Your task to perform on an android device: Add "dell xps" to the cart on walmart.com, then select checkout. Image 0: 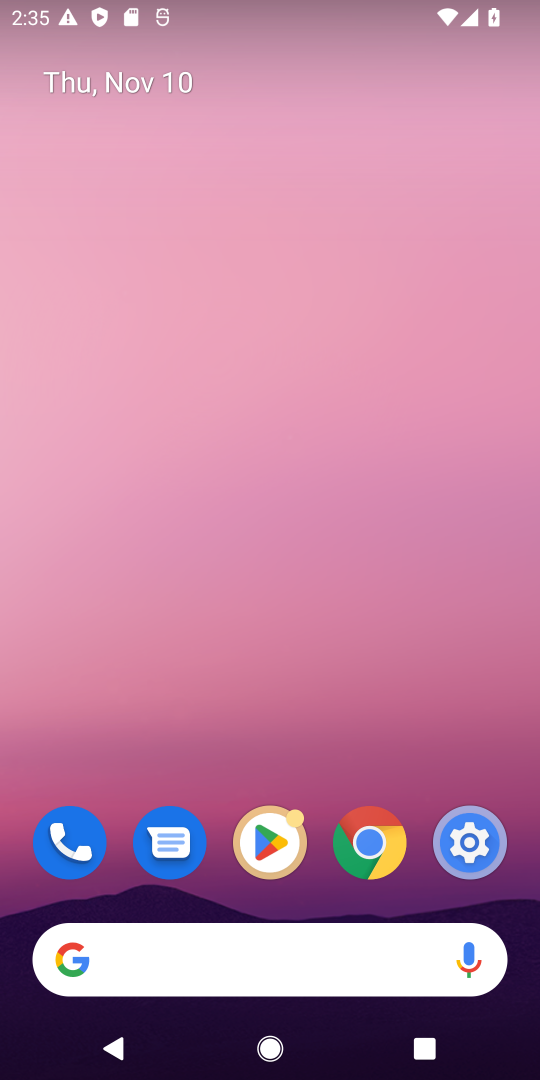
Step 0: click (299, 965)
Your task to perform on an android device: Add "dell xps" to the cart on walmart.com, then select checkout. Image 1: 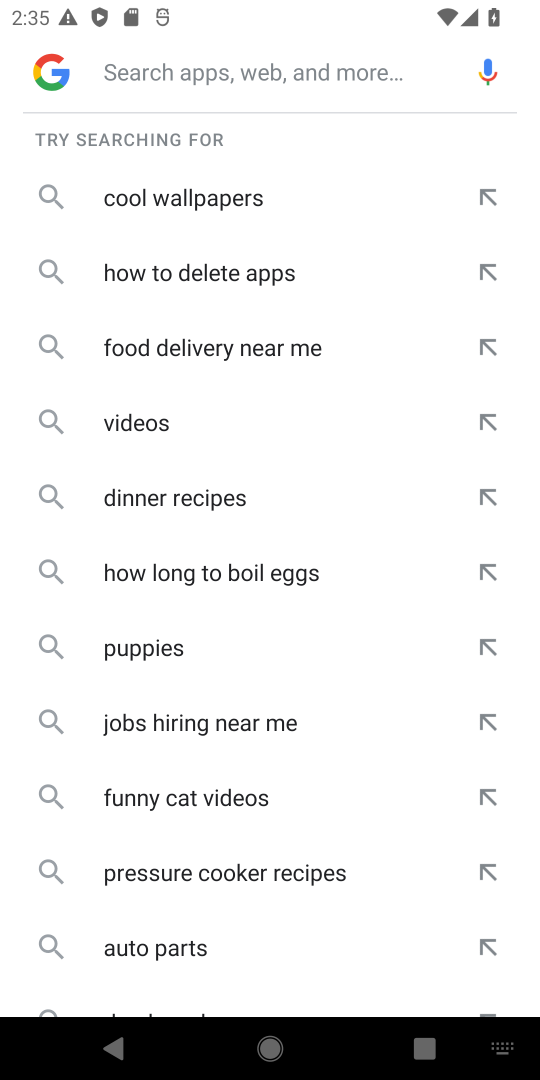
Step 1: type "walmart.com"
Your task to perform on an android device: Add "dell xps" to the cart on walmart.com, then select checkout. Image 2: 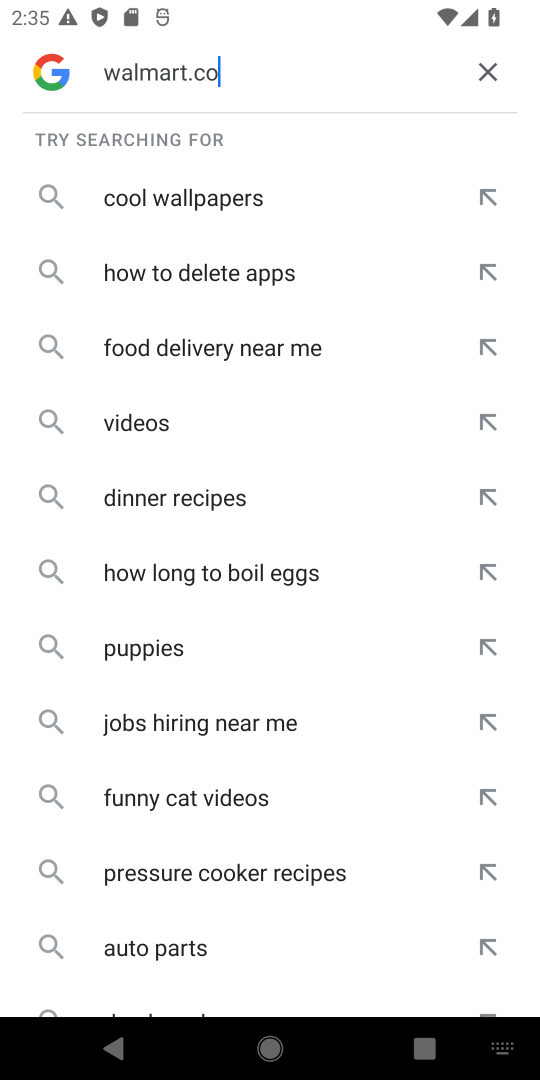
Step 2: type ""
Your task to perform on an android device: Add "dell xps" to the cart on walmart.com, then select checkout. Image 3: 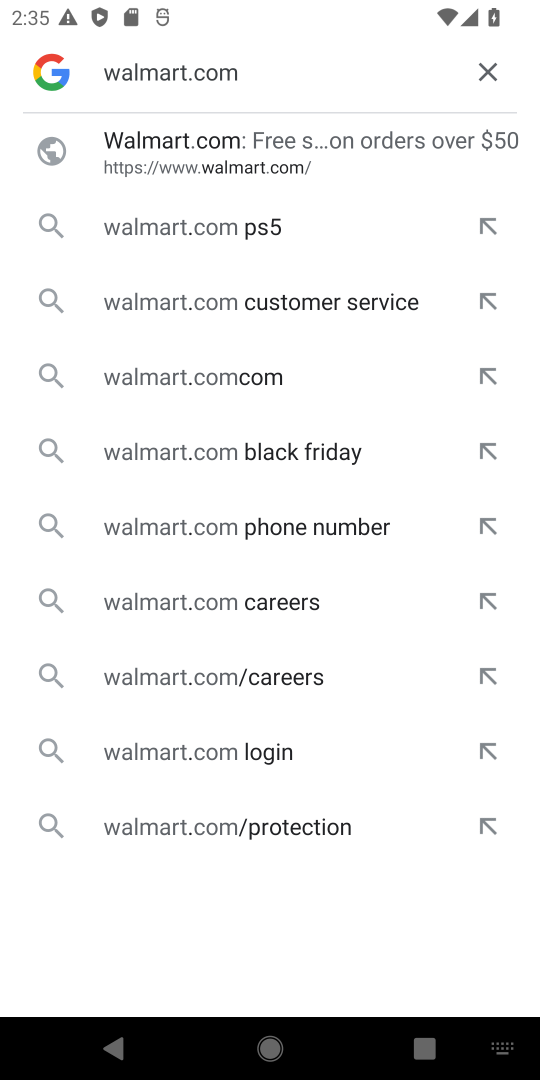
Step 3: task complete